Your task to perform on an android device: turn on data saver in the chrome app Image 0: 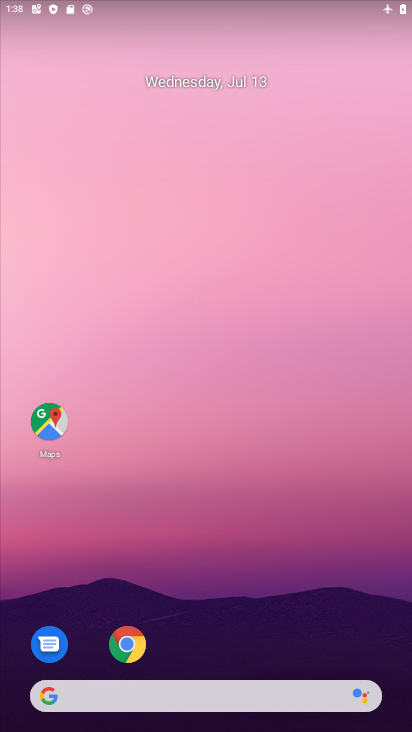
Step 0: drag from (287, 610) to (263, 82)
Your task to perform on an android device: turn on data saver in the chrome app Image 1: 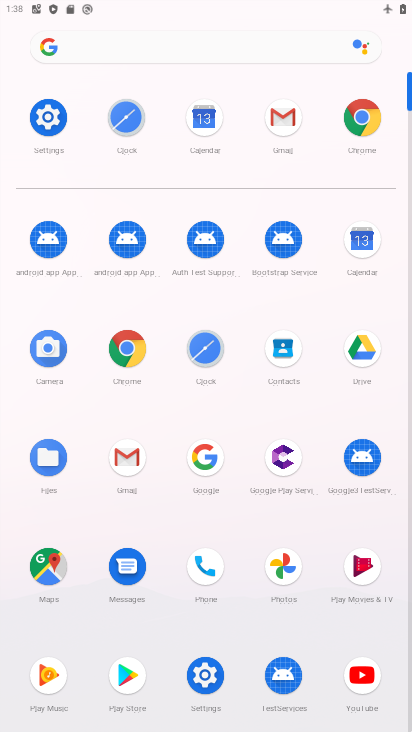
Step 1: click (123, 349)
Your task to perform on an android device: turn on data saver in the chrome app Image 2: 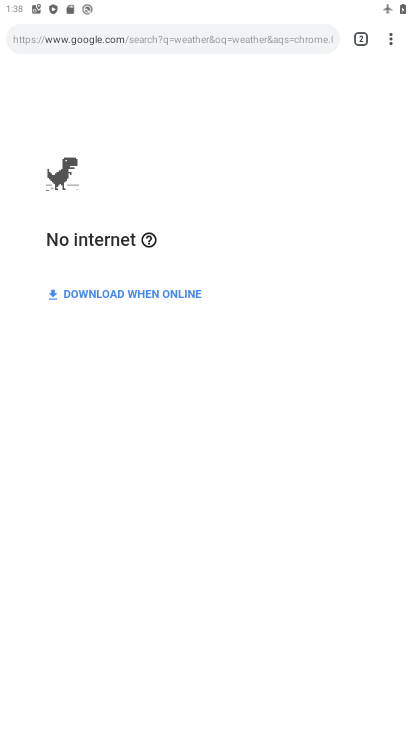
Step 2: drag from (393, 35) to (247, 438)
Your task to perform on an android device: turn on data saver in the chrome app Image 3: 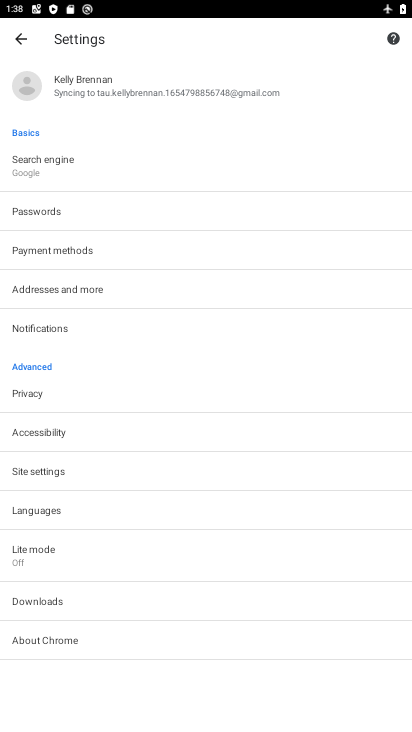
Step 3: click (43, 556)
Your task to perform on an android device: turn on data saver in the chrome app Image 4: 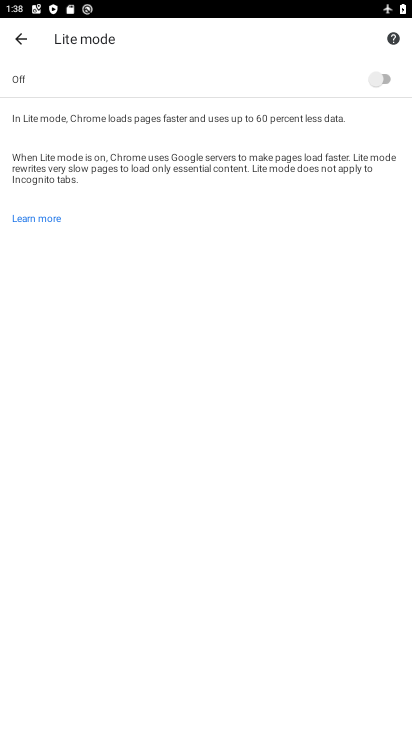
Step 4: click (376, 72)
Your task to perform on an android device: turn on data saver in the chrome app Image 5: 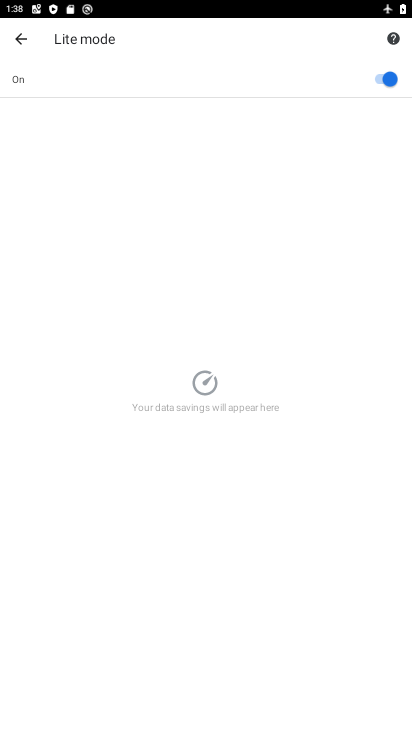
Step 5: task complete